Your task to perform on an android device: Open Yahoo.com Image 0: 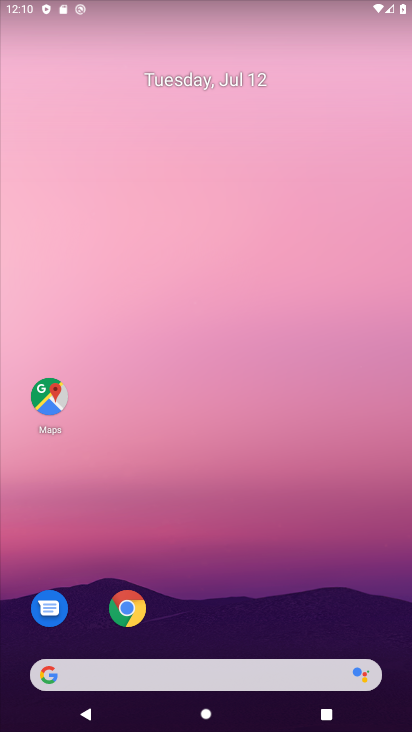
Step 0: click (323, 154)
Your task to perform on an android device: Open Yahoo.com Image 1: 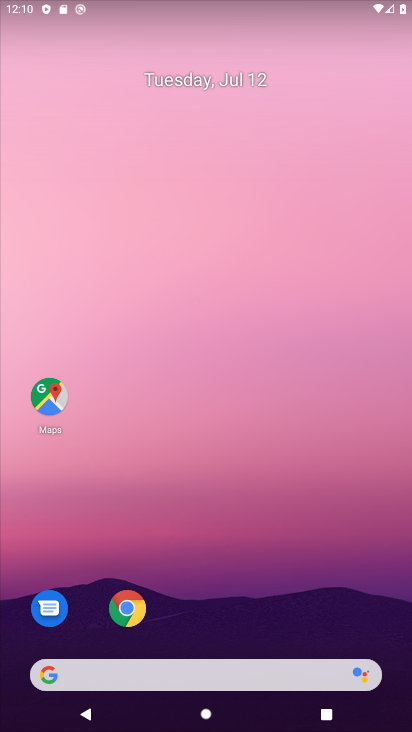
Step 1: drag from (269, 375) to (257, 239)
Your task to perform on an android device: Open Yahoo.com Image 2: 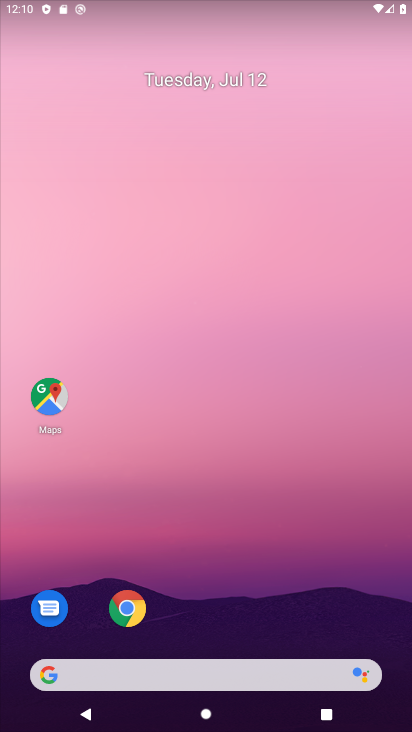
Step 2: drag from (297, 644) to (297, 328)
Your task to perform on an android device: Open Yahoo.com Image 3: 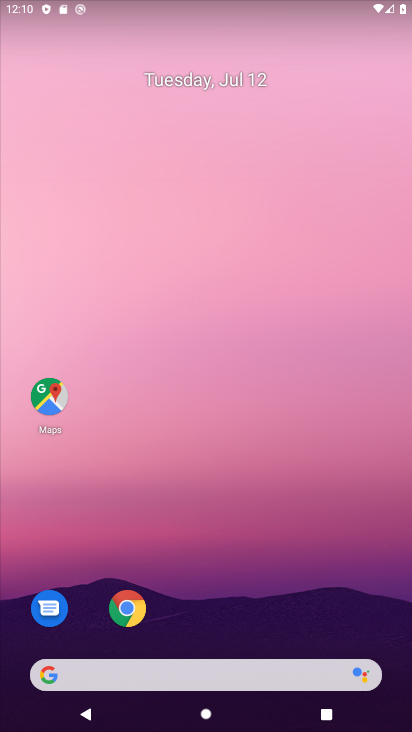
Step 3: drag from (248, 519) to (211, 186)
Your task to perform on an android device: Open Yahoo.com Image 4: 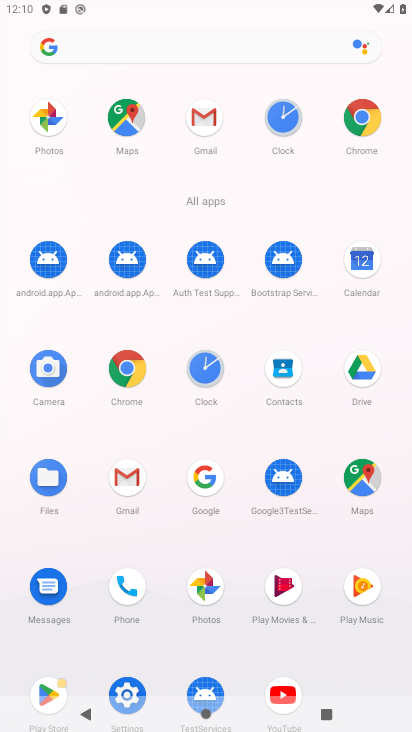
Step 4: drag from (162, 502) to (221, 149)
Your task to perform on an android device: Open Yahoo.com Image 5: 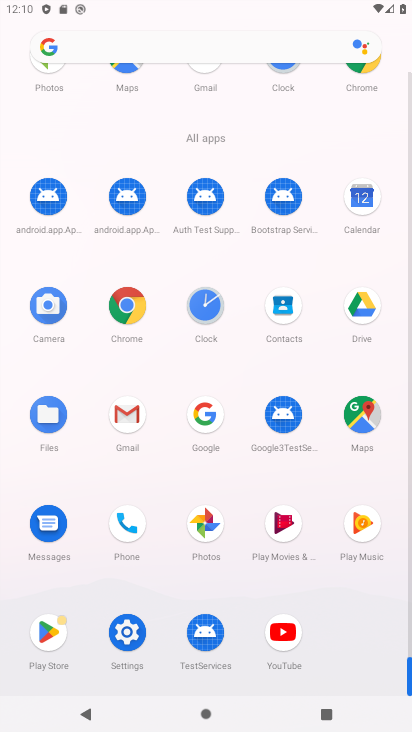
Step 5: click (133, 627)
Your task to perform on an android device: Open Yahoo.com Image 6: 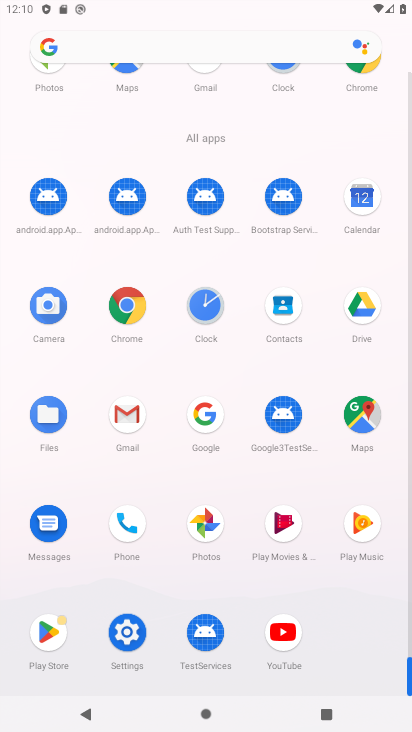
Step 6: click (124, 632)
Your task to perform on an android device: Open Yahoo.com Image 7: 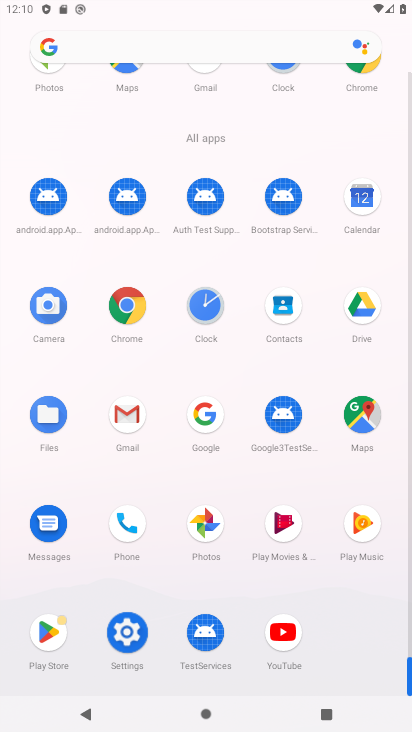
Step 7: click (124, 632)
Your task to perform on an android device: Open Yahoo.com Image 8: 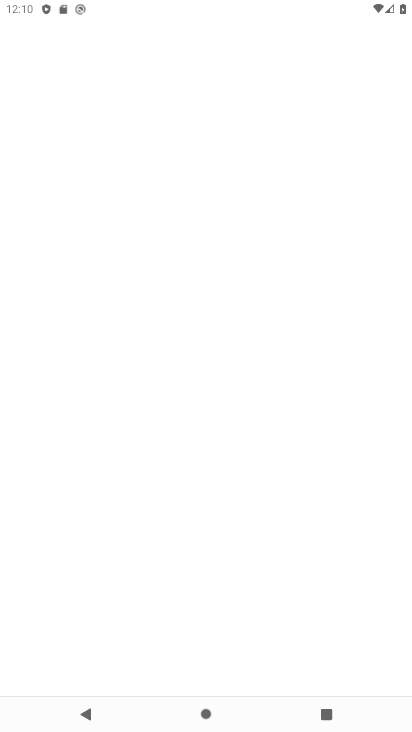
Step 8: click (125, 632)
Your task to perform on an android device: Open Yahoo.com Image 9: 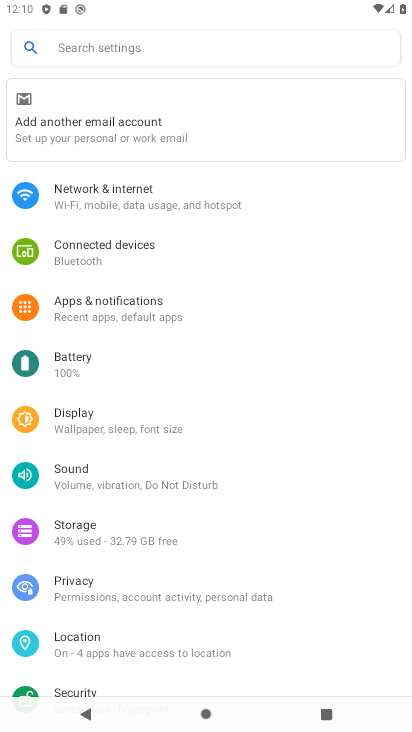
Step 9: click (34, 47)
Your task to perform on an android device: Open Yahoo.com Image 10: 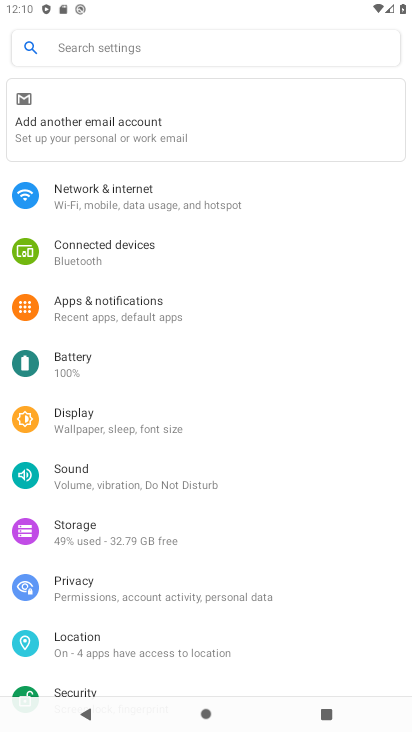
Step 10: click (37, 47)
Your task to perform on an android device: Open Yahoo.com Image 11: 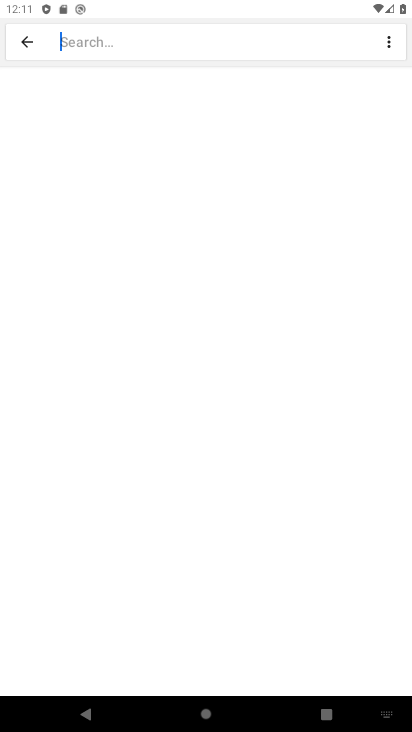
Step 11: press back button
Your task to perform on an android device: Open Yahoo.com Image 12: 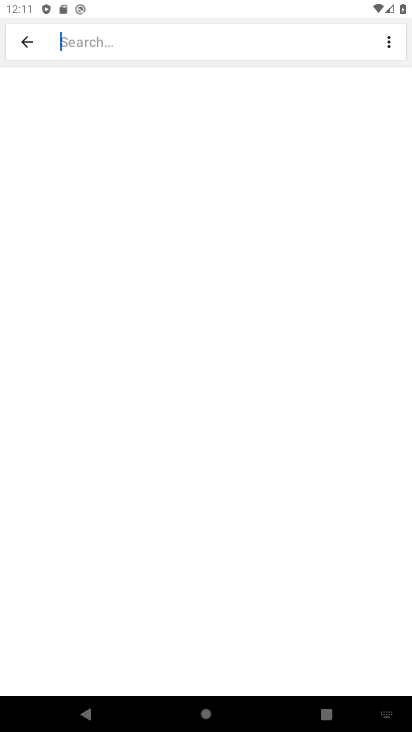
Step 12: press back button
Your task to perform on an android device: Open Yahoo.com Image 13: 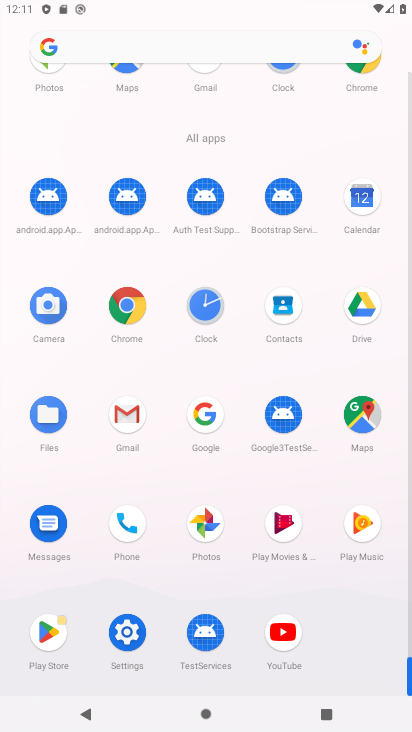
Step 13: click (126, 635)
Your task to perform on an android device: Open Yahoo.com Image 14: 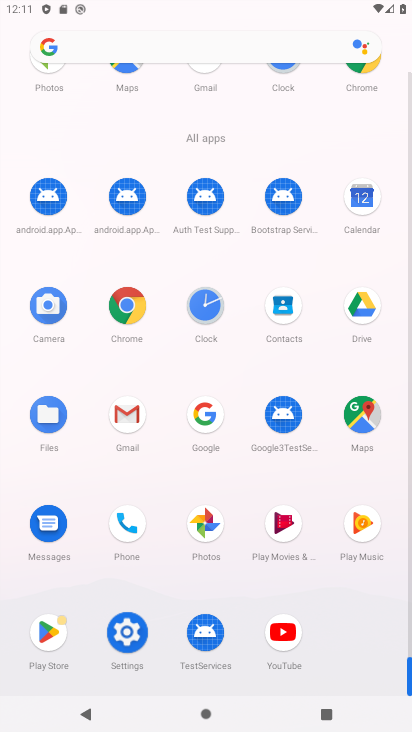
Step 14: click (126, 635)
Your task to perform on an android device: Open Yahoo.com Image 15: 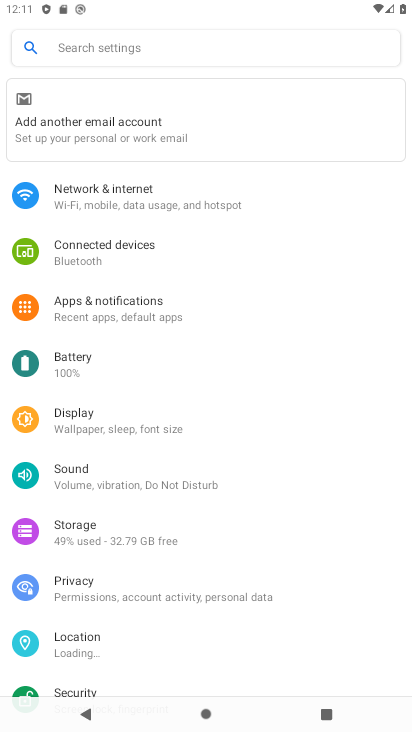
Step 15: press home button
Your task to perform on an android device: Open Yahoo.com Image 16: 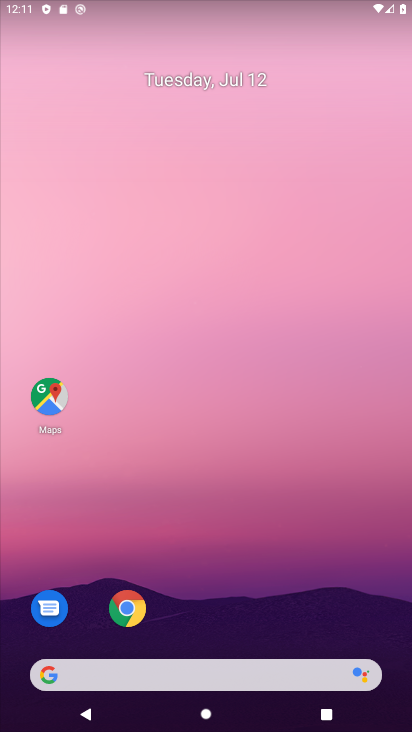
Step 16: click (244, 215)
Your task to perform on an android device: Open Yahoo.com Image 17: 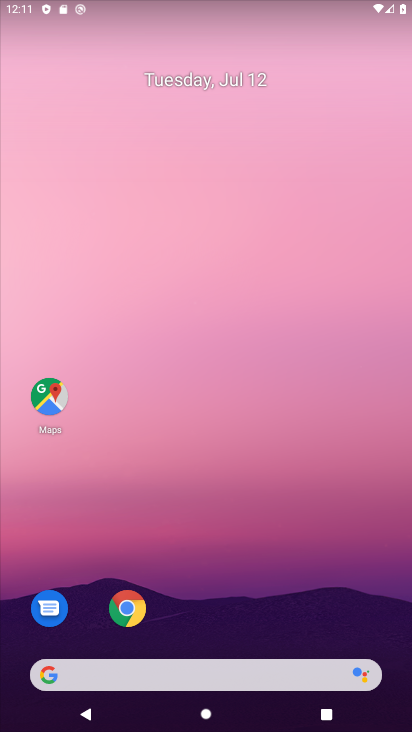
Step 17: drag from (250, 626) to (198, 13)
Your task to perform on an android device: Open Yahoo.com Image 18: 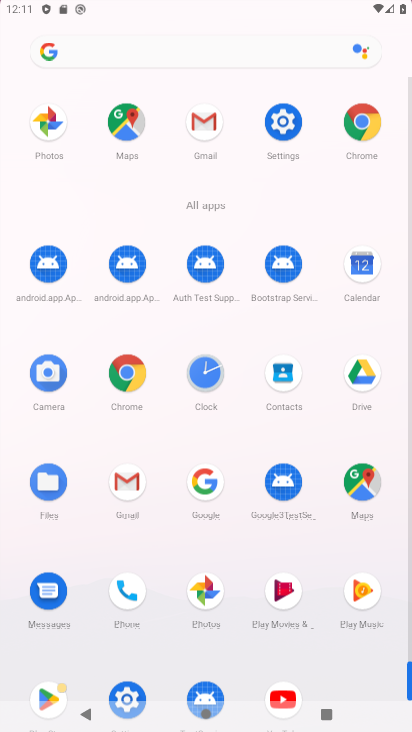
Step 18: drag from (276, 413) to (171, 118)
Your task to perform on an android device: Open Yahoo.com Image 19: 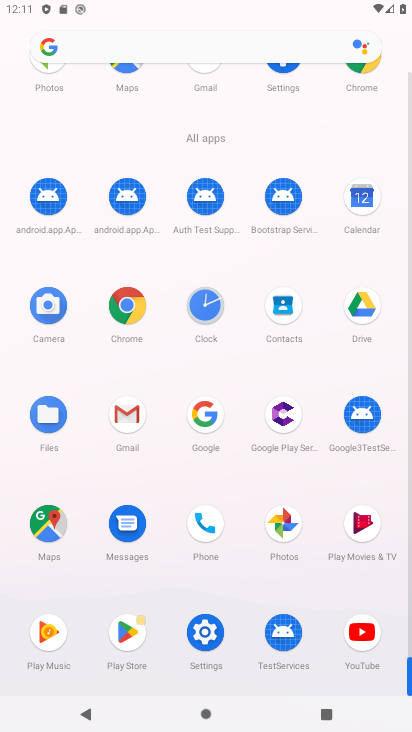
Step 19: click (132, 312)
Your task to perform on an android device: Open Yahoo.com Image 20: 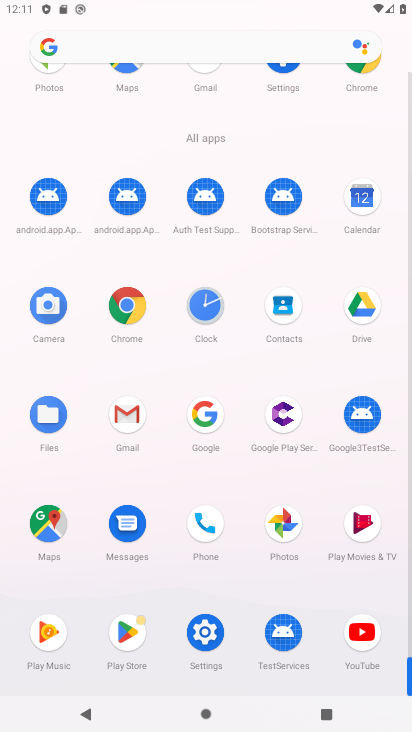
Step 20: click (125, 318)
Your task to perform on an android device: Open Yahoo.com Image 21: 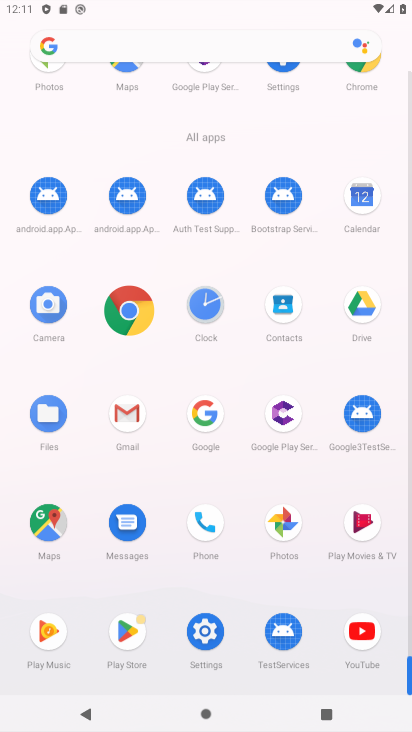
Step 21: click (127, 317)
Your task to perform on an android device: Open Yahoo.com Image 22: 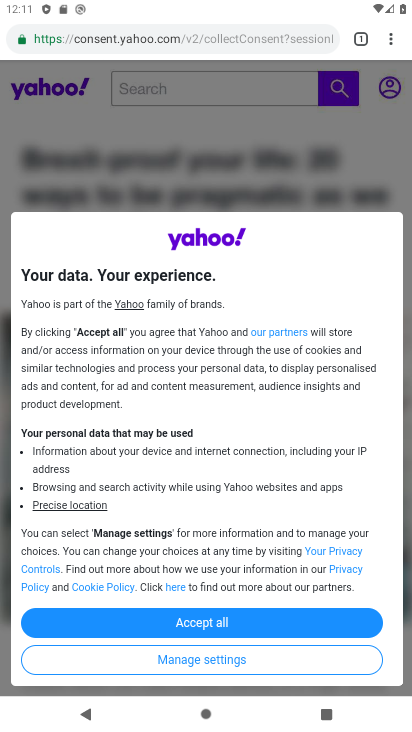
Step 22: task complete